Your task to perform on an android device: Open calendar and show me the first week of next month Image 0: 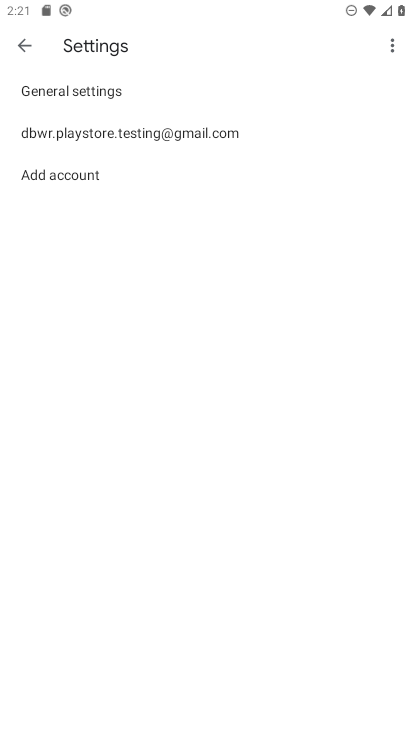
Step 0: press home button
Your task to perform on an android device: Open calendar and show me the first week of next month Image 1: 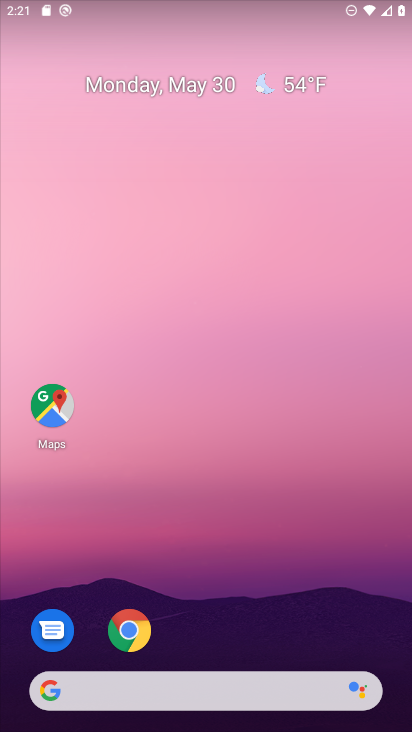
Step 1: drag from (156, 710) to (296, 124)
Your task to perform on an android device: Open calendar and show me the first week of next month Image 2: 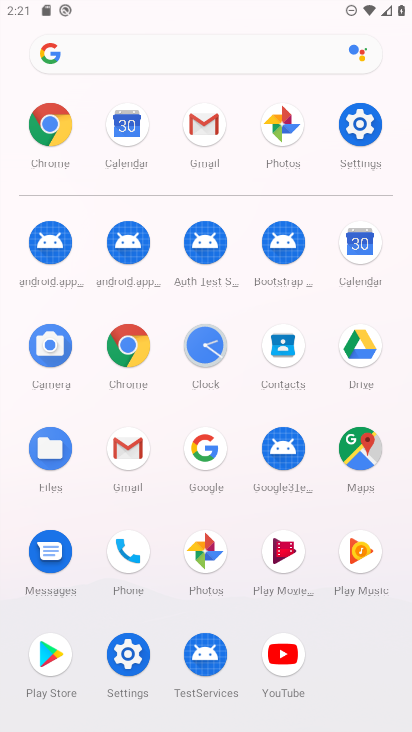
Step 2: click (356, 254)
Your task to perform on an android device: Open calendar and show me the first week of next month Image 3: 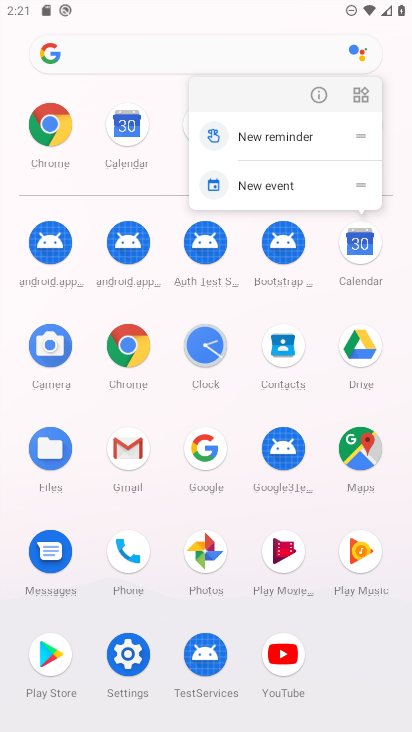
Step 3: click (361, 238)
Your task to perform on an android device: Open calendar and show me the first week of next month Image 4: 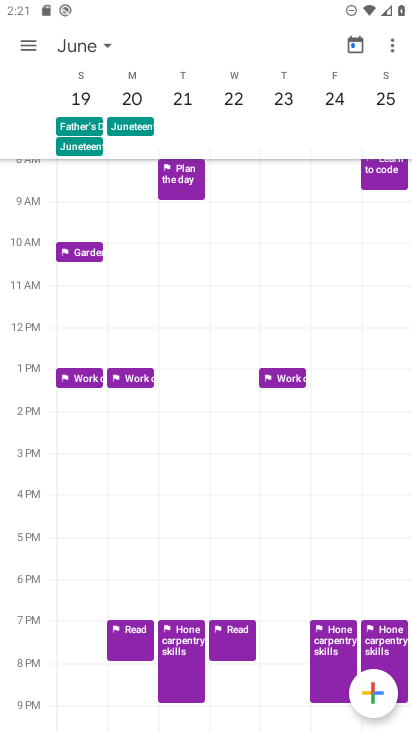
Step 4: click (85, 50)
Your task to perform on an android device: Open calendar and show me the first week of next month Image 5: 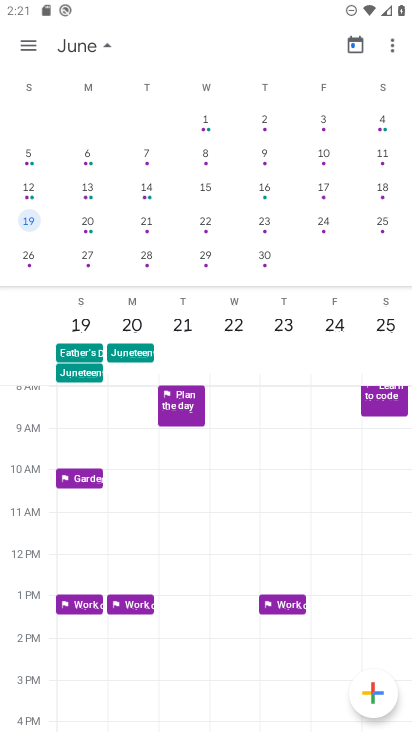
Step 5: click (202, 120)
Your task to perform on an android device: Open calendar and show me the first week of next month Image 6: 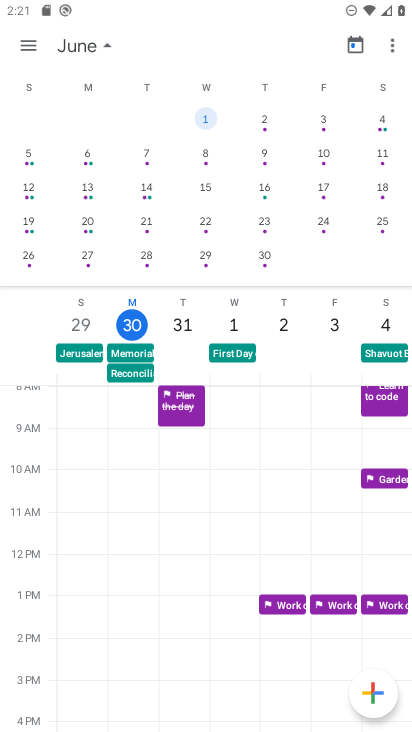
Step 6: click (25, 47)
Your task to perform on an android device: Open calendar and show me the first week of next month Image 7: 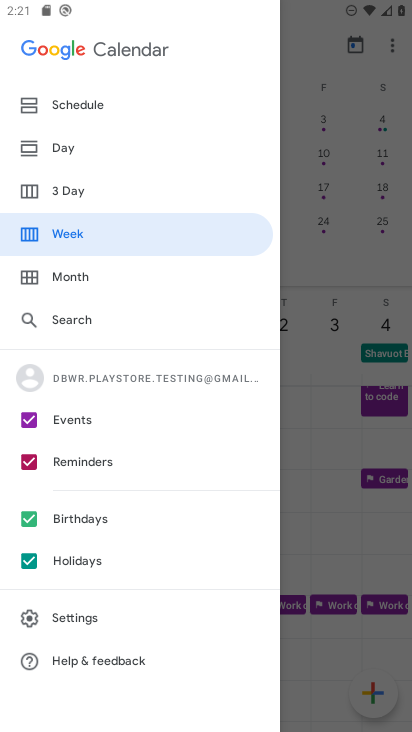
Step 7: click (64, 228)
Your task to perform on an android device: Open calendar and show me the first week of next month Image 8: 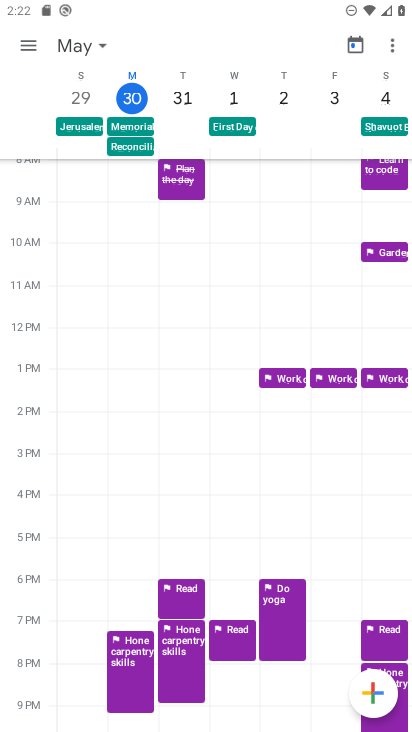
Step 8: task complete